Your task to perform on an android device: turn off notifications settings in the gmail app Image 0: 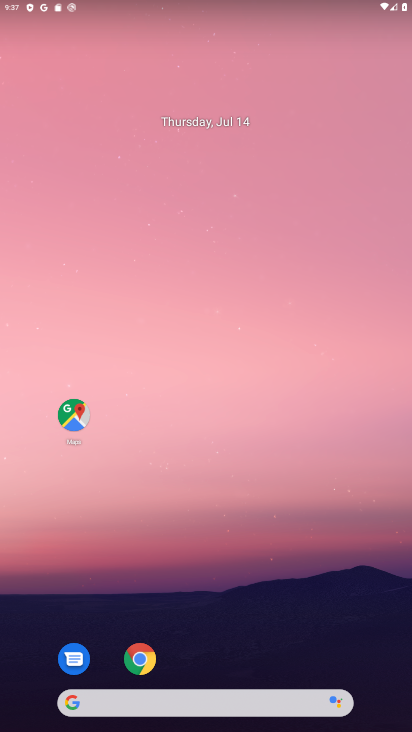
Step 0: drag from (299, 591) to (208, 159)
Your task to perform on an android device: turn off notifications settings in the gmail app Image 1: 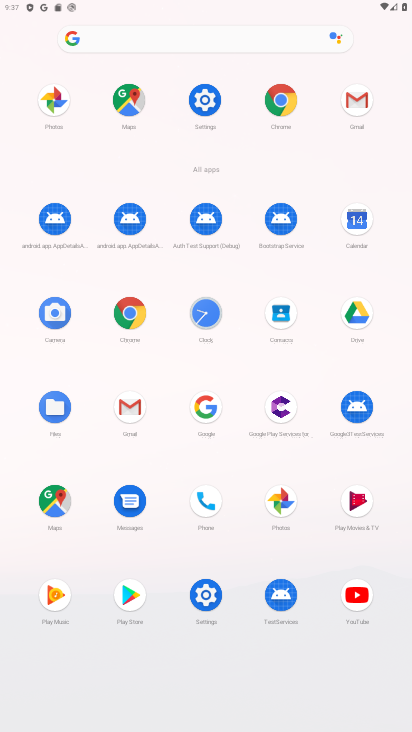
Step 1: click (353, 97)
Your task to perform on an android device: turn off notifications settings in the gmail app Image 2: 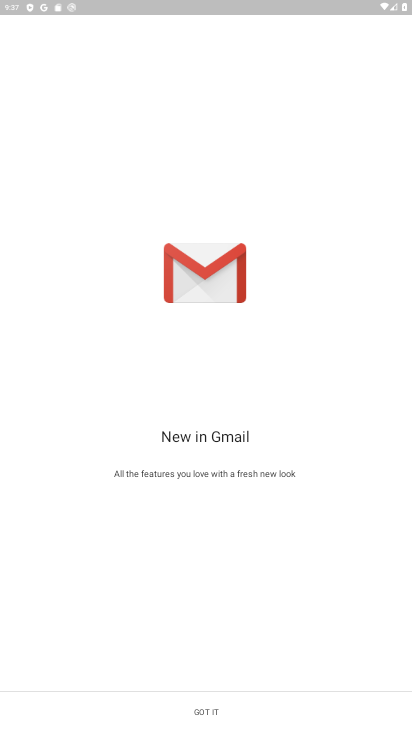
Step 2: click (225, 699)
Your task to perform on an android device: turn off notifications settings in the gmail app Image 3: 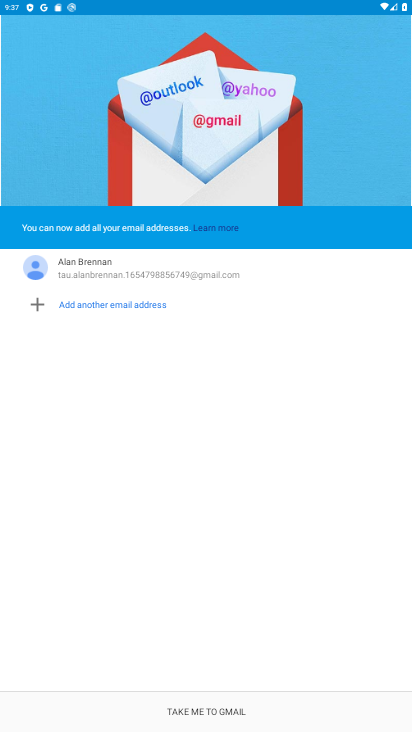
Step 3: click (226, 690)
Your task to perform on an android device: turn off notifications settings in the gmail app Image 4: 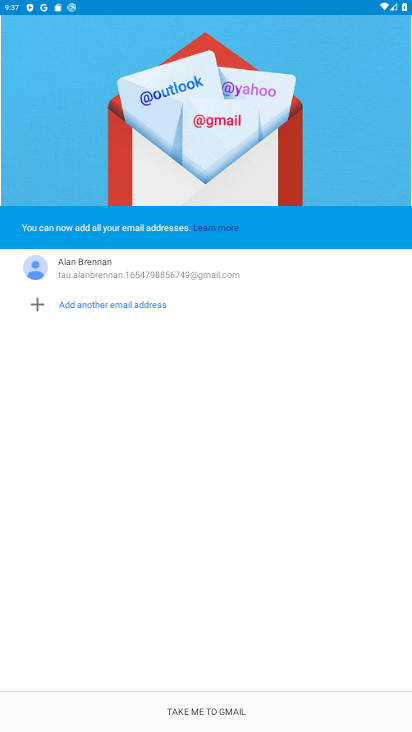
Step 4: click (224, 697)
Your task to perform on an android device: turn off notifications settings in the gmail app Image 5: 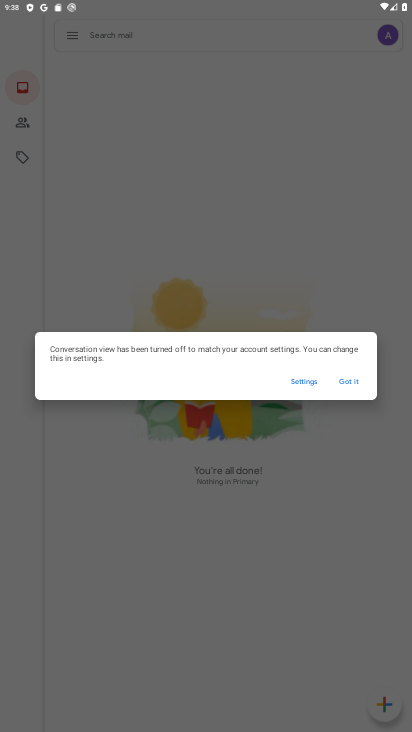
Step 5: press home button
Your task to perform on an android device: turn off notifications settings in the gmail app Image 6: 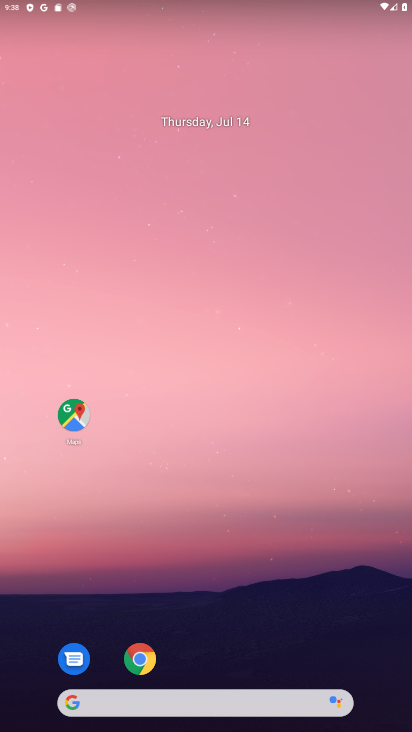
Step 6: drag from (353, 632) to (212, 176)
Your task to perform on an android device: turn off notifications settings in the gmail app Image 7: 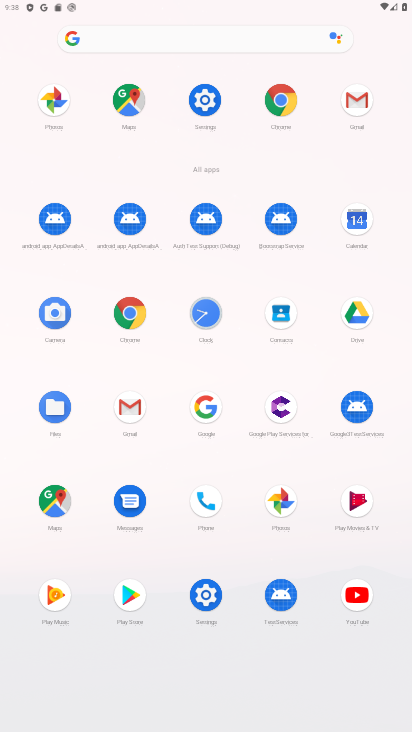
Step 7: click (357, 99)
Your task to perform on an android device: turn off notifications settings in the gmail app Image 8: 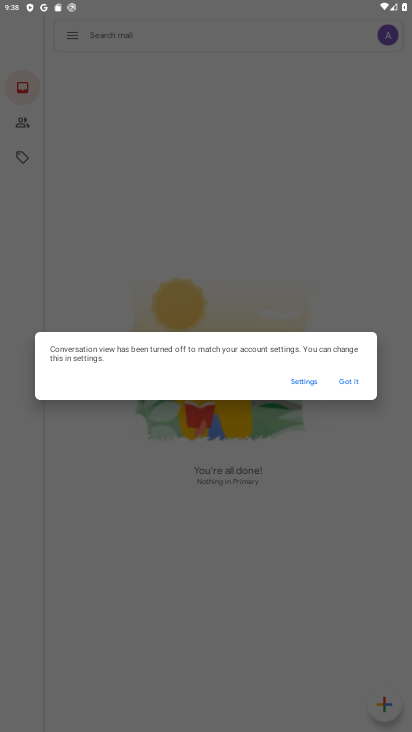
Step 8: click (351, 386)
Your task to perform on an android device: turn off notifications settings in the gmail app Image 9: 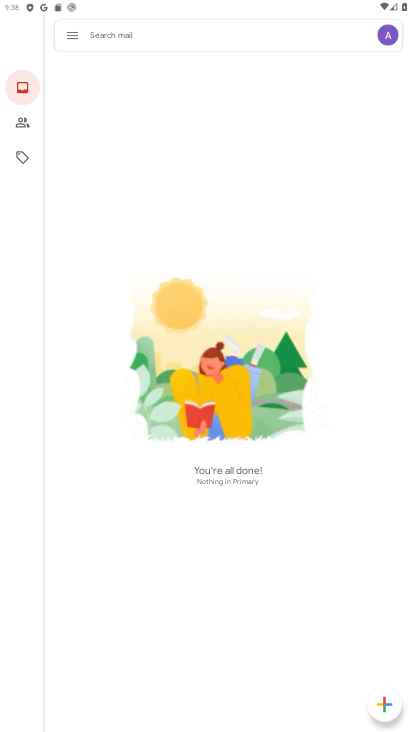
Step 9: click (70, 40)
Your task to perform on an android device: turn off notifications settings in the gmail app Image 10: 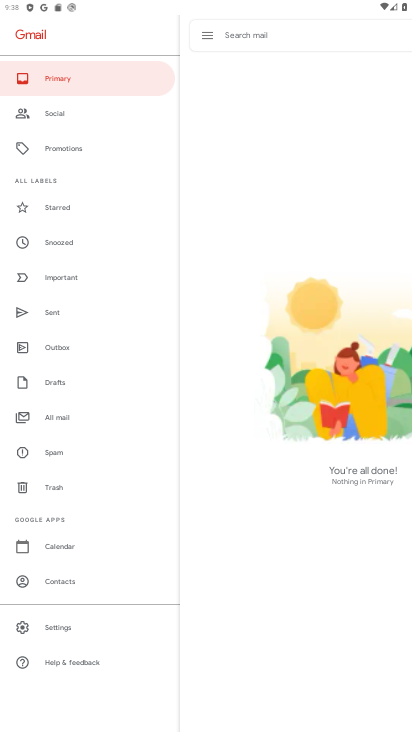
Step 10: click (77, 629)
Your task to perform on an android device: turn off notifications settings in the gmail app Image 11: 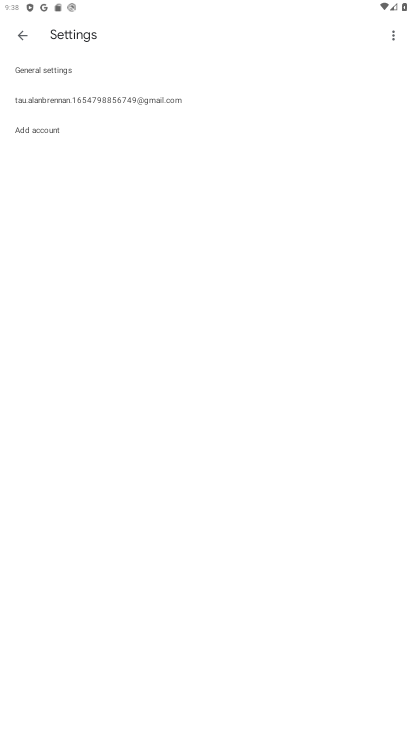
Step 11: click (125, 91)
Your task to perform on an android device: turn off notifications settings in the gmail app Image 12: 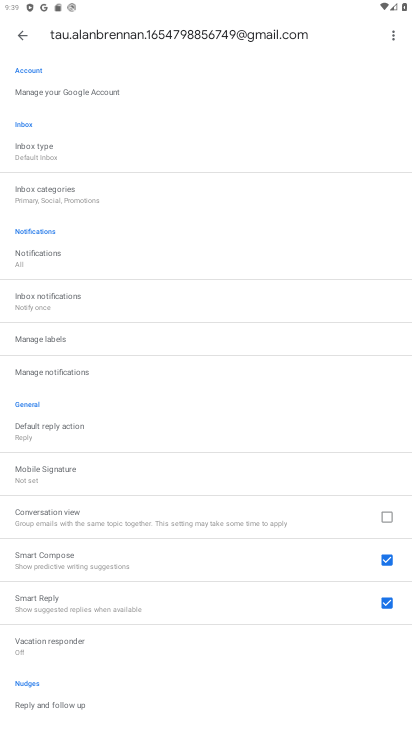
Step 12: click (84, 374)
Your task to perform on an android device: turn off notifications settings in the gmail app Image 13: 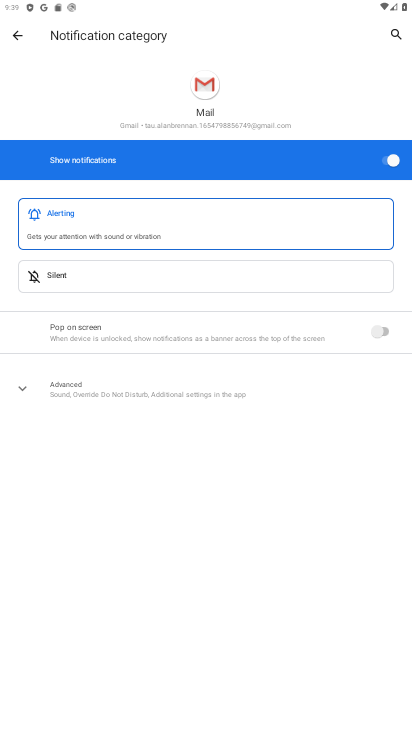
Step 13: click (395, 156)
Your task to perform on an android device: turn off notifications settings in the gmail app Image 14: 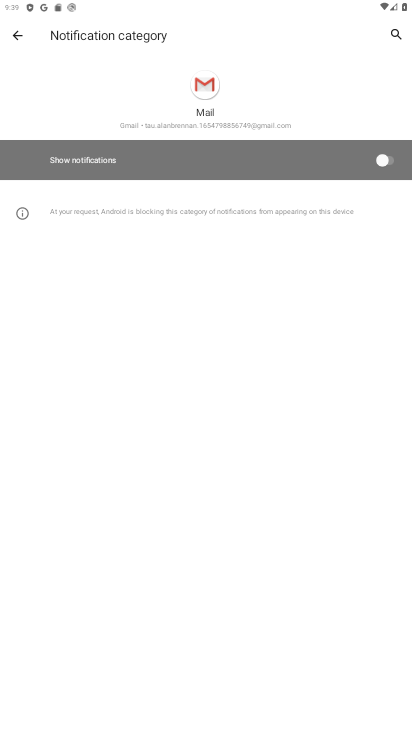
Step 14: task complete